Your task to perform on an android device: Open the Play Movies app and select the watchlist tab. Image 0: 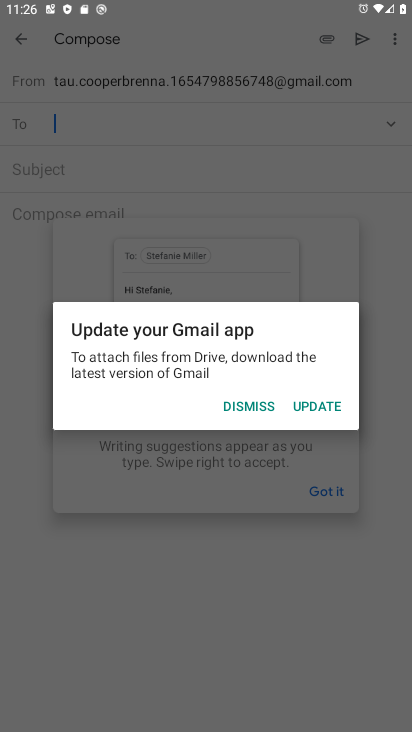
Step 0: press home button
Your task to perform on an android device: Open the Play Movies app and select the watchlist tab. Image 1: 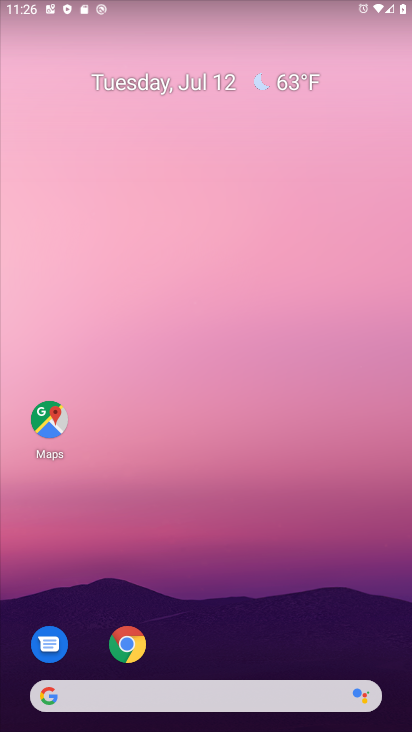
Step 1: drag from (177, 692) to (205, 179)
Your task to perform on an android device: Open the Play Movies app and select the watchlist tab. Image 2: 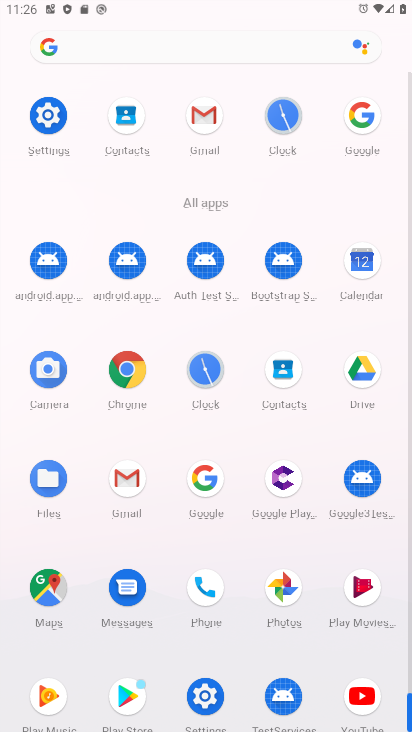
Step 2: click (362, 585)
Your task to perform on an android device: Open the Play Movies app and select the watchlist tab. Image 3: 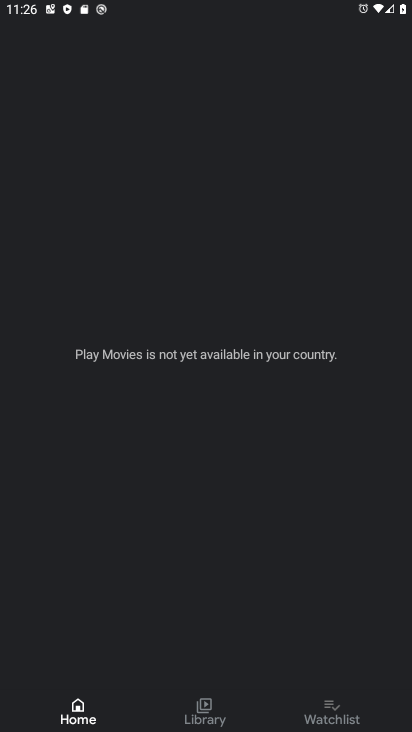
Step 3: click (331, 703)
Your task to perform on an android device: Open the Play Movies app and select the watchlist tab. Image 4: 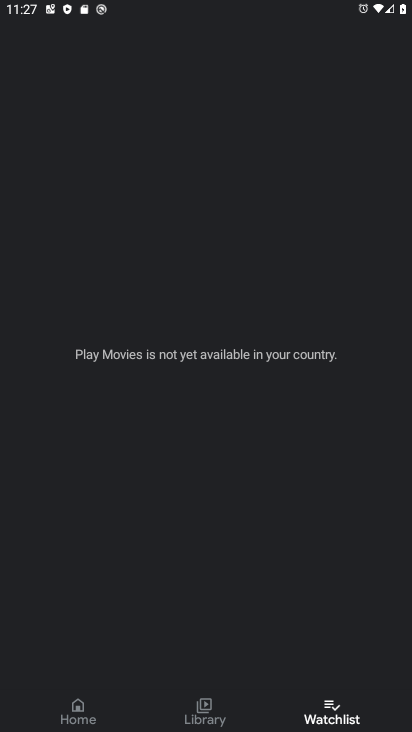
Step 4: task complete